Your task to perform on an android device: turn off notifications settings in the gmail app Image 0: 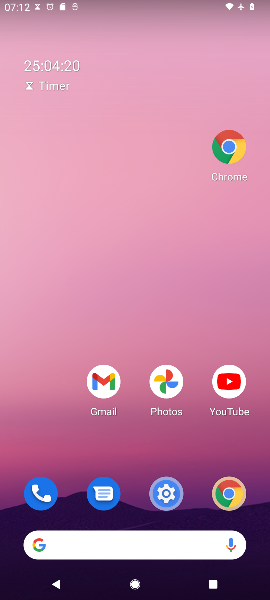
Step 0: press home button
Your task to perform on an android device: turn off notifications settings in the gmail app Image 1: 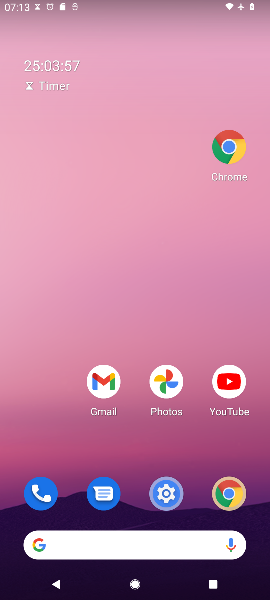
Step 1: click (100, 380)
Your task to perform on an android device: turn off notifications settings in the gmail app Image 2: 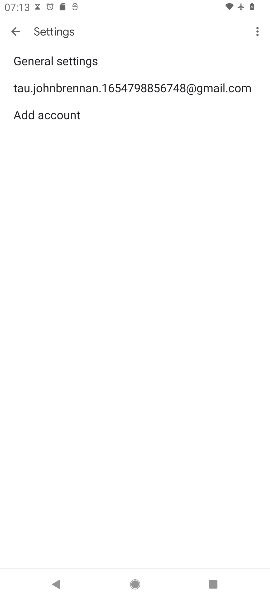
Step 2: press back button
Your task to perform on an android device: turn off notifications settings in the gmail app Image 3: 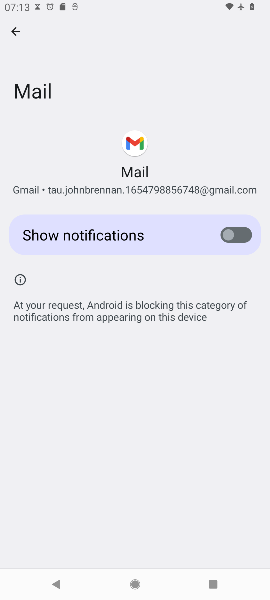
Step 3: click (15, 34)
Your task to perform on an android device: turn off notifications settings in the gmail app Image 4: 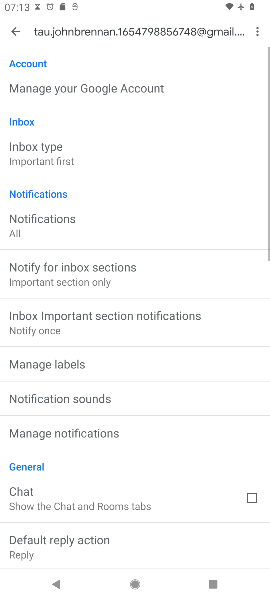
Step 4: click (14, 34)
Your task to perform on an android device: turn off notifications settings in the gmail app Image 5: 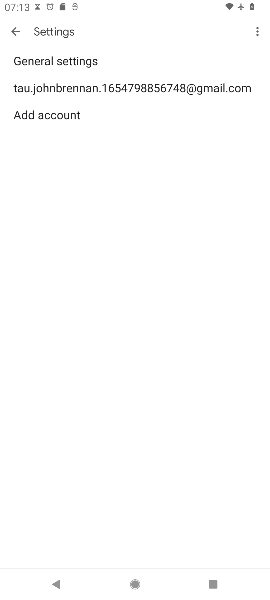
Step 5: click (13, 34)
Your task to perform on an android device: turn off notifications settings in the gmail app Image 6: 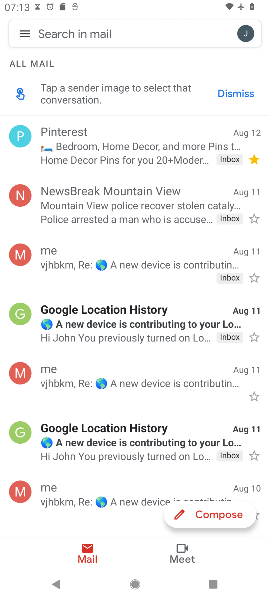
Step 6: click (245, 32)
Your task to perform on an android device: turn off notifications settings in the gmail app Image 7: 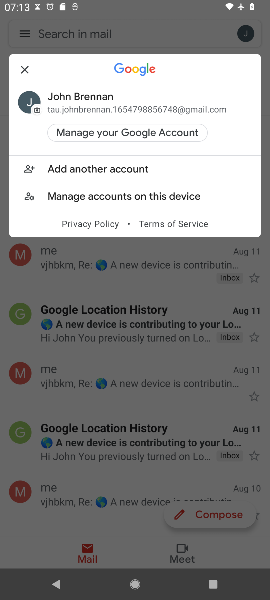
Step 7: click (34, 34)
Your task to perform on an android device: turn off notifications settings in the gmail app Image 8: 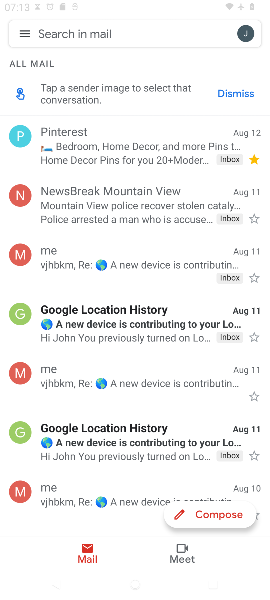
Step 8: click (24, 36)
Your task to perform on an android device: turn off notifications settings in the gmail app Image 9: 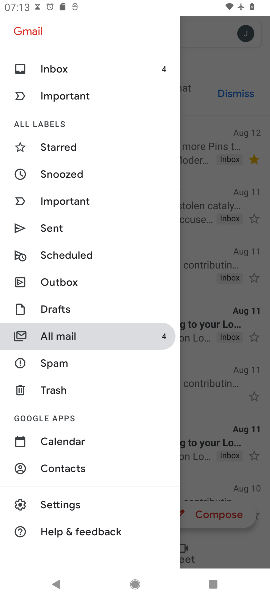
Step 9: click (63, 503)
Your task to perform on an android device: turn off notifications settings in the gmail app Image 10: 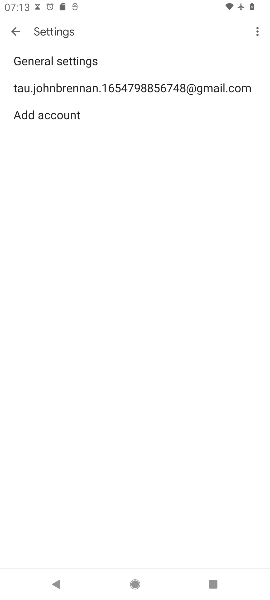
Step 10: click (90, 91)
Your task to perform on an android device: turn off notifications settings in the gmail app Image 11: 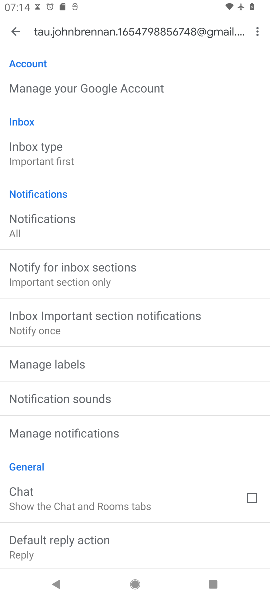
Step 11: click (73, 438)
Your task to perform on an android device: turn off notifications settings in the gmail app Image 12: 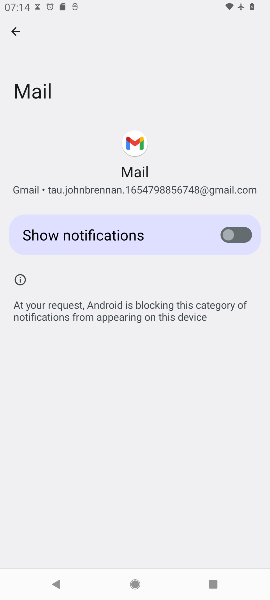
Step 12: task complete